Your task to perform on an android device: open a new tab in the chrome app Image 0: 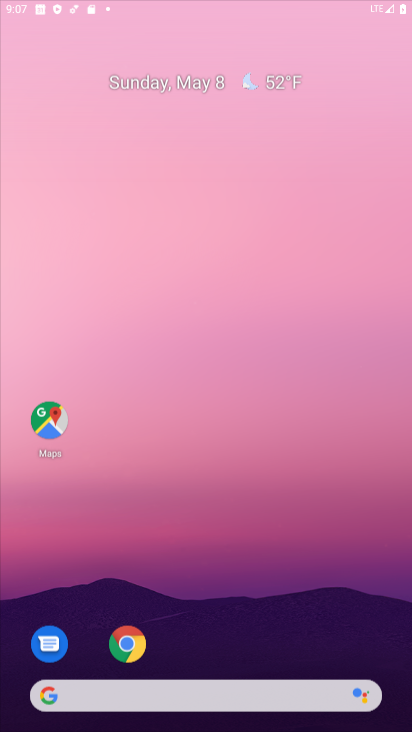
Step 0: drag from (201, 615) to (346, 278)
Your task to perform on an android device: open a new tab in the chrome app Image 1: 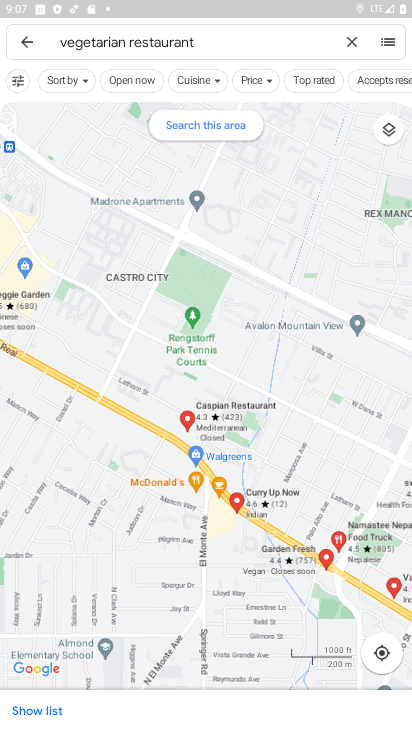
Step 1: press home button
Your task to perform on an android device: open a new tab in the chrome app Image 2: 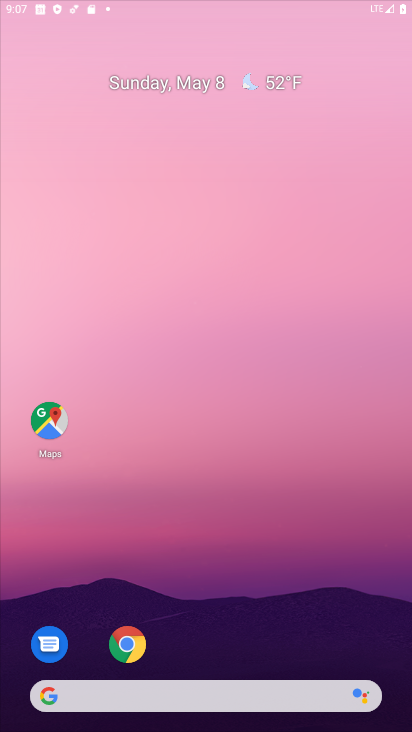
Step 2: drag from (211, 567) to (284, 107)
Your task to perform on an android device: open a new tab in the chrome app Image 3: 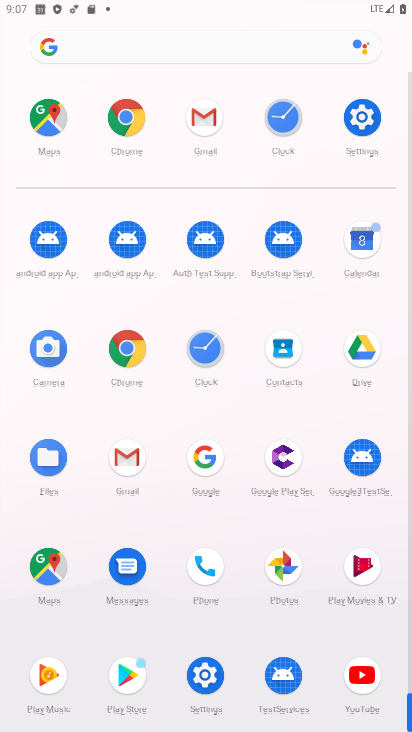
Step 3: drag from (235, 679) to (297, 268)
Your task to perform on an android device: open a new tab in the chrome app Image 4: 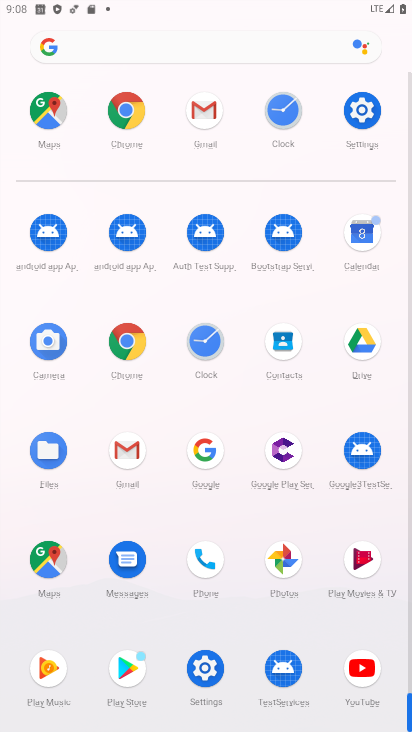
Step 4: click (130, 346)
Your task to perform on an android device: open a new tab in the chrome app Image 5: 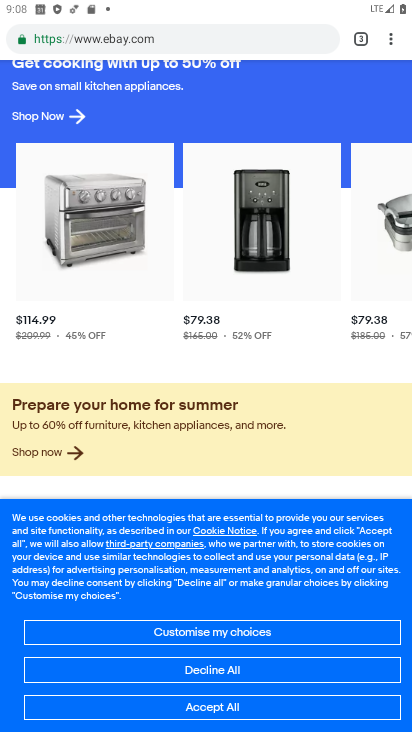
Step 5: click (367, 22)
Your task to perform on an android device: open a new tab in the chrome app Image 6: 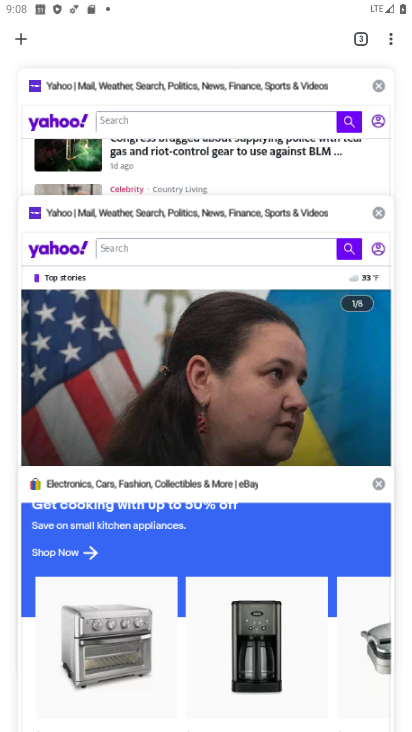
Step 6: click (12, 37)
Your task to perform on an android device: open a new tab in the chrome app Image 7: 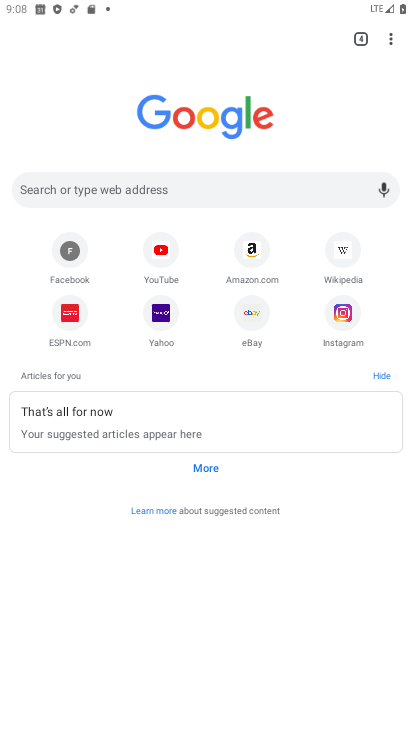
Step 7: task complete